Your task to perform on an android device: turn on javascript in the chrome app Image 0: 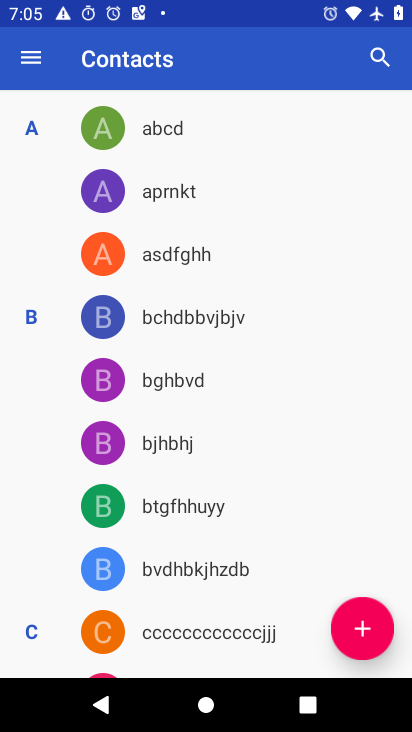
Step 0: press home button
Your task to perform on an android device: turn on javascript in the chrome app Image 1: 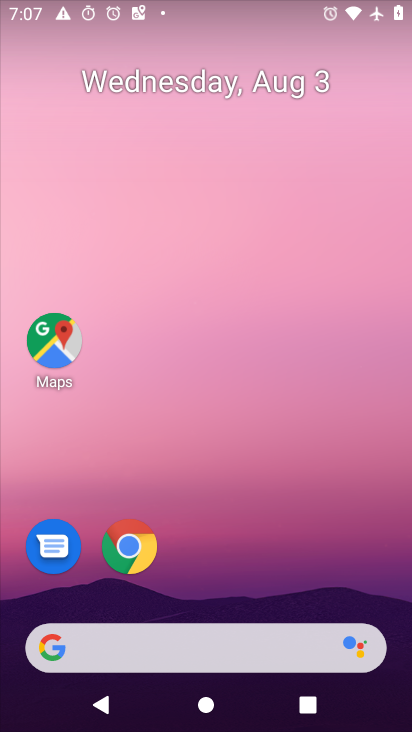
Step 1: click (137, 540)
Your task to perform on an android device: turn on javascript in the chrome app Image 2: 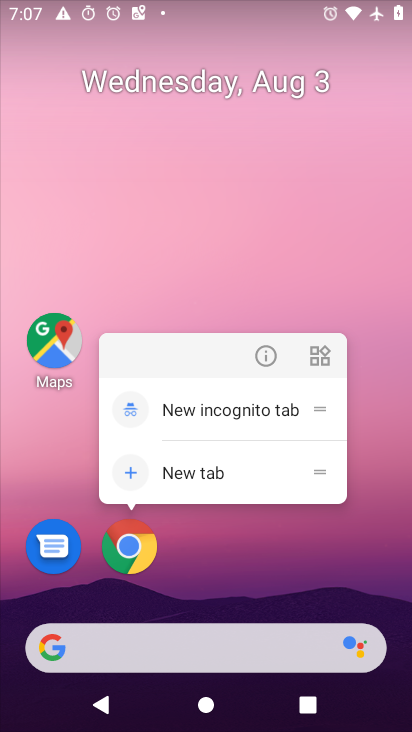
Step 2: click (137, 558)
Your task to perform on an android device: turn on javascript in the chrome app Image 3: 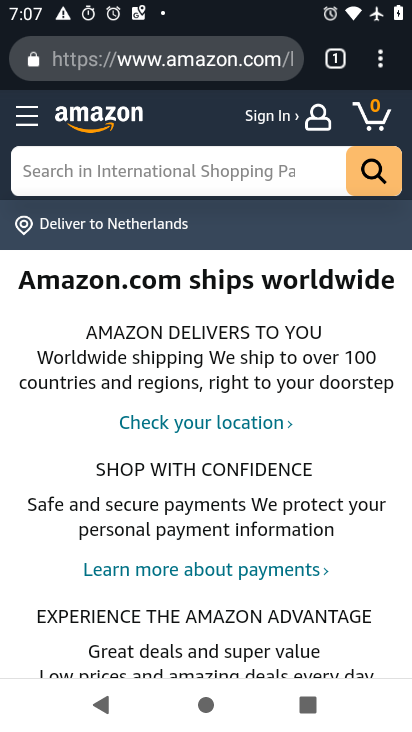
Step 3: drag from (382, 57) to (199, 577)
Your task to perform on an android device: turn on javascript in the chrome app Image 4: 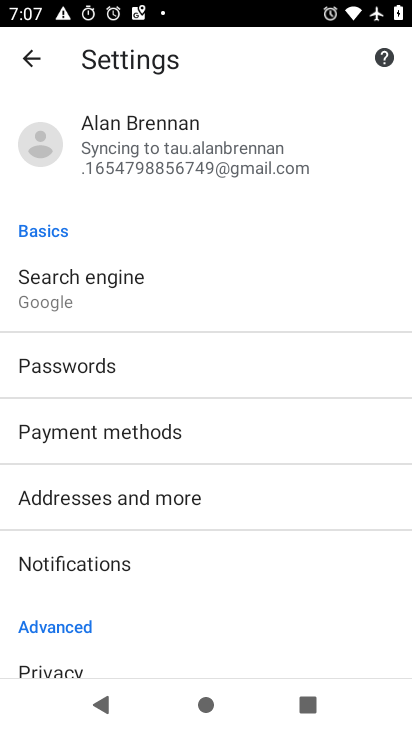
Step 4: drag from (225, 619) to (253, 86)
Your task to perform on an android device: turn on javascript in the chrome app Image 5: 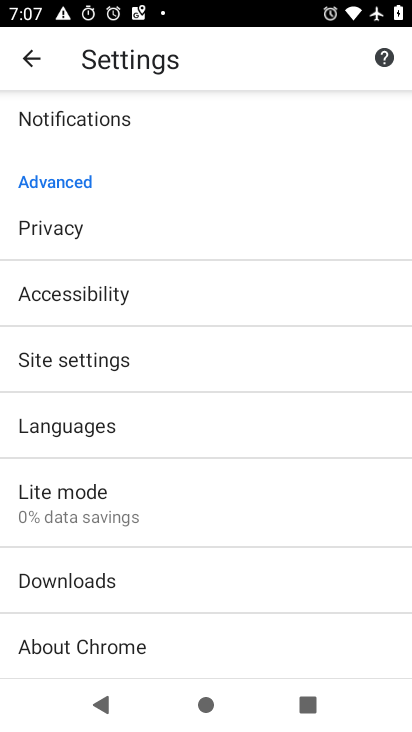
Step 5: click (73, 357)
Your task to perform on an android device: turn on javascript in the chrome app Image 6: 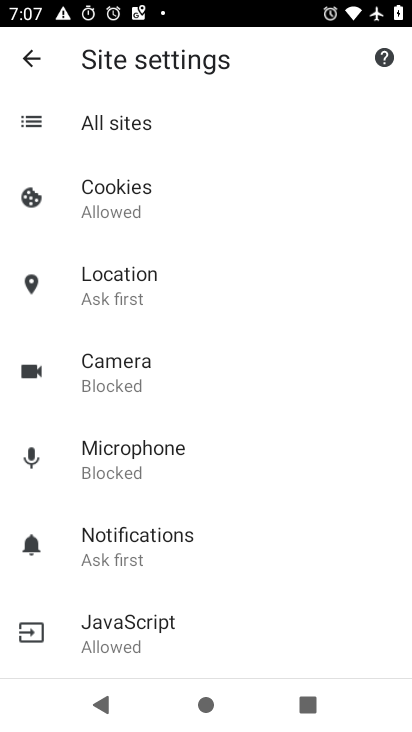
Step 6: click (136, 631)
Your task to perform on an android device: turn on javascript in the chrome app Image 7: 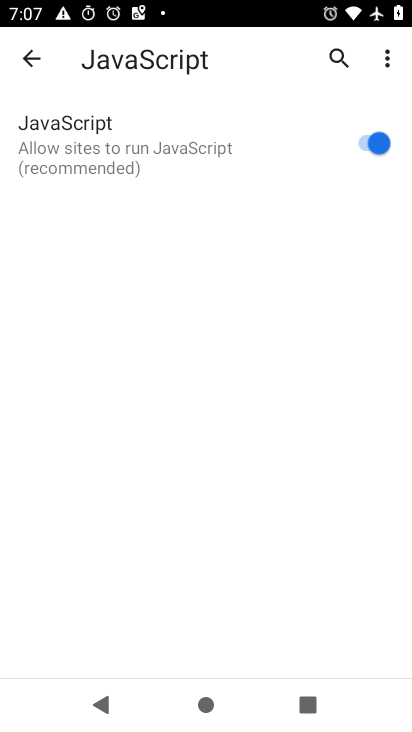
Step 7: task complete